Your task to perform on an android device: find photos in the google photos app Image 0: 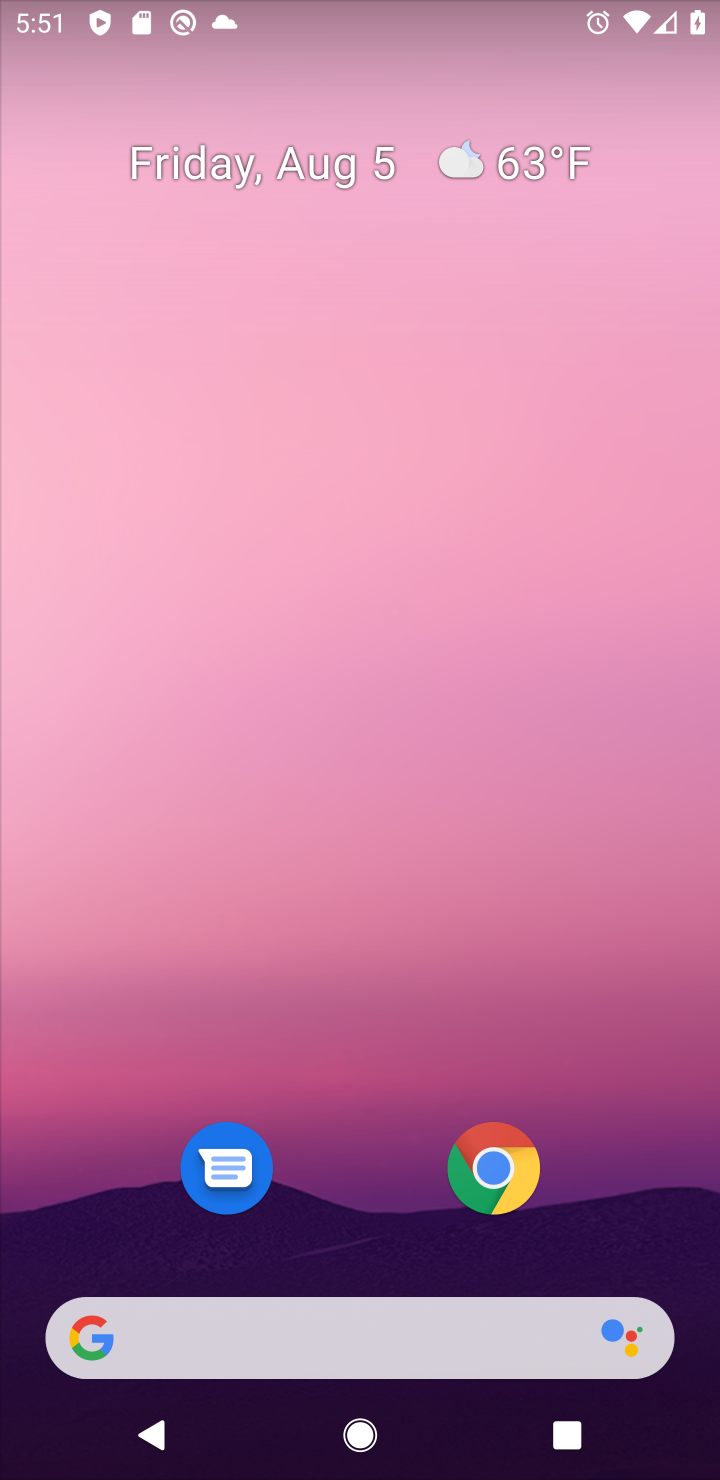
Step 0: press home button
Your task to perform on an android device: find photos in the google photos app Image 1: 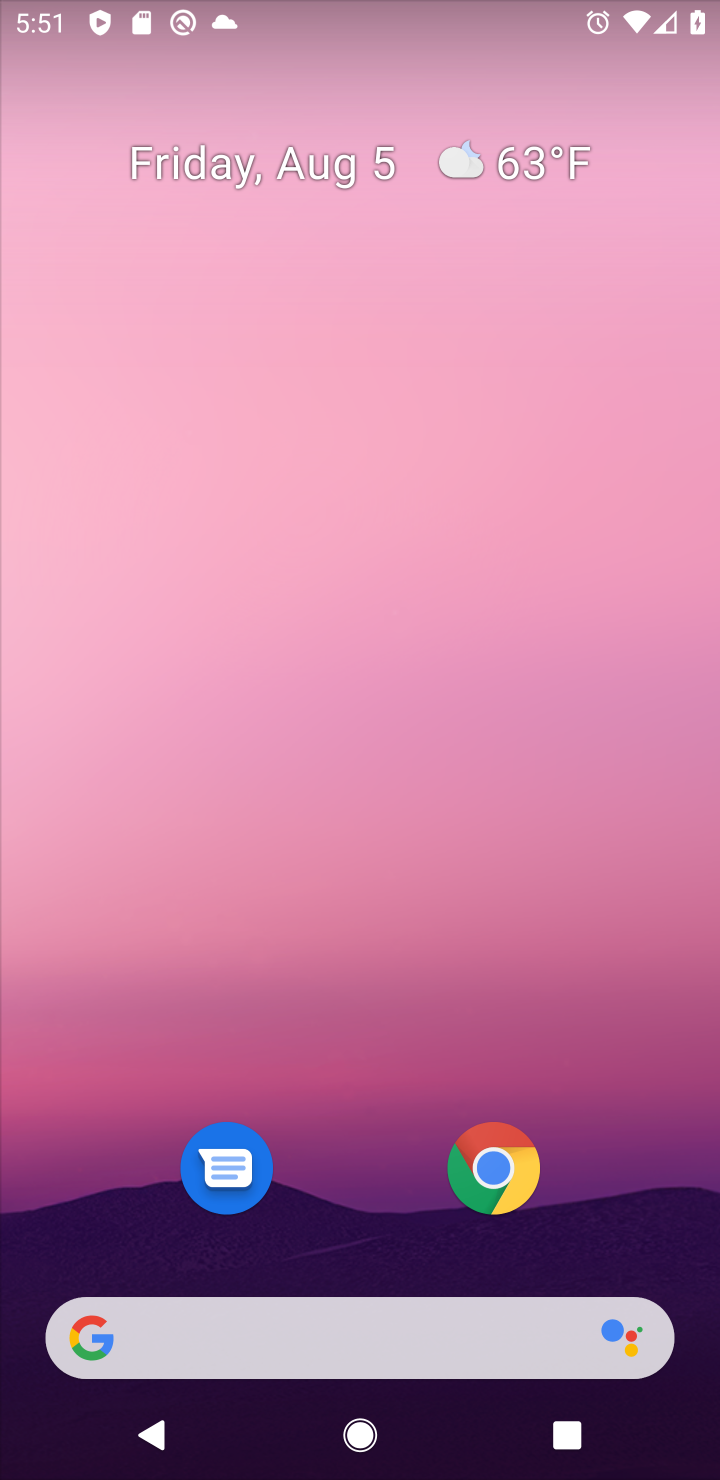
Step 1: drag from (375, 948) to (468, 189)
Your task to perform on an android device: find photos in the google photos app Image 2: 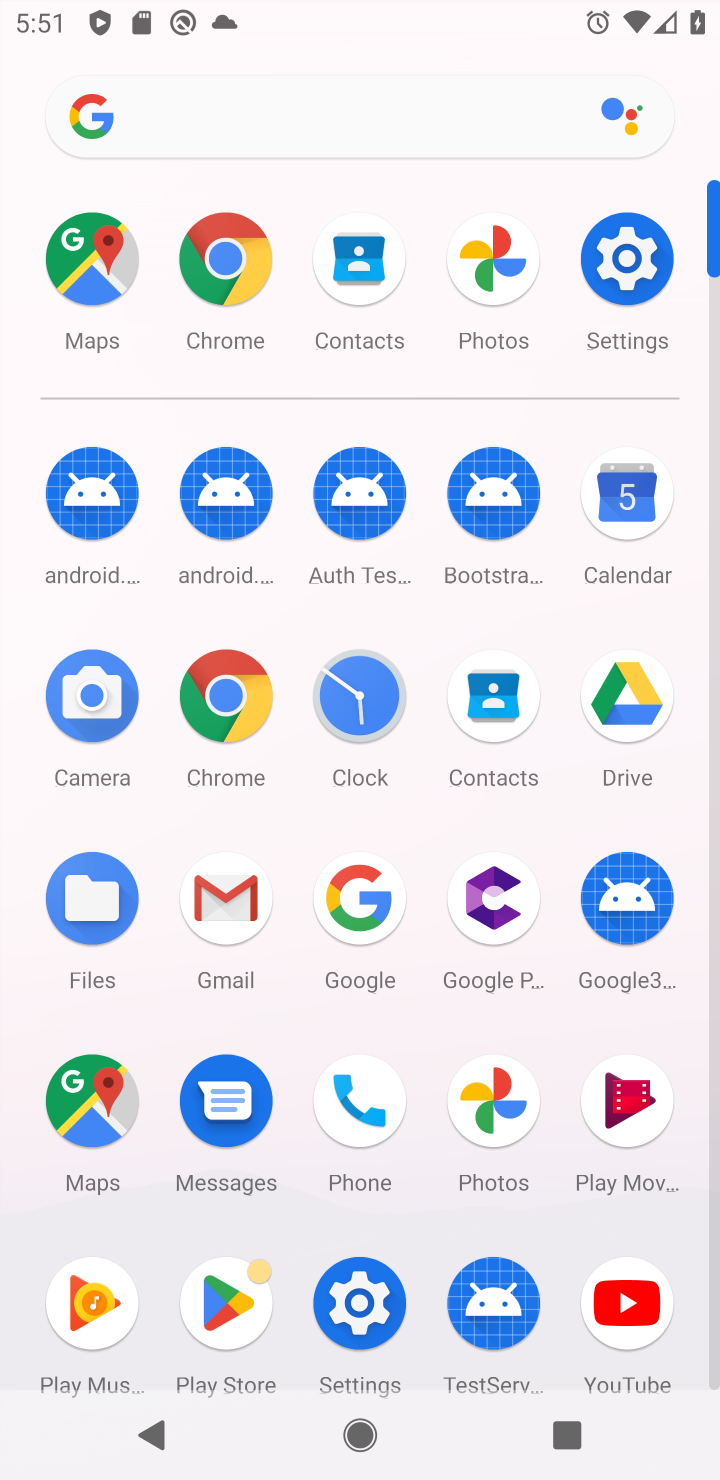
Step 2: click (493, 255)
Your task to perform on an android device: find photos in the google photos app Image 3: 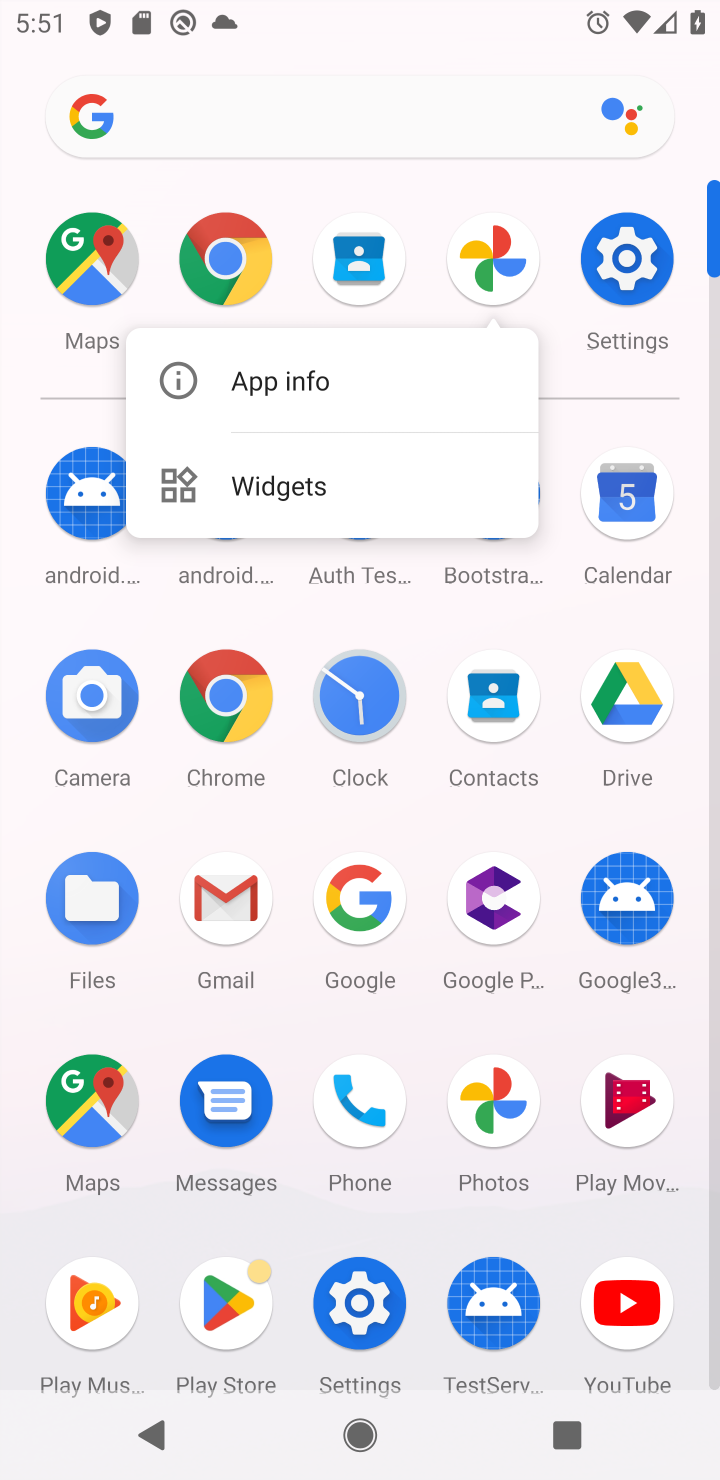
Step 3: click (496, 252)
Your task to perform on an android device: find photos in the google photos app Image 4: 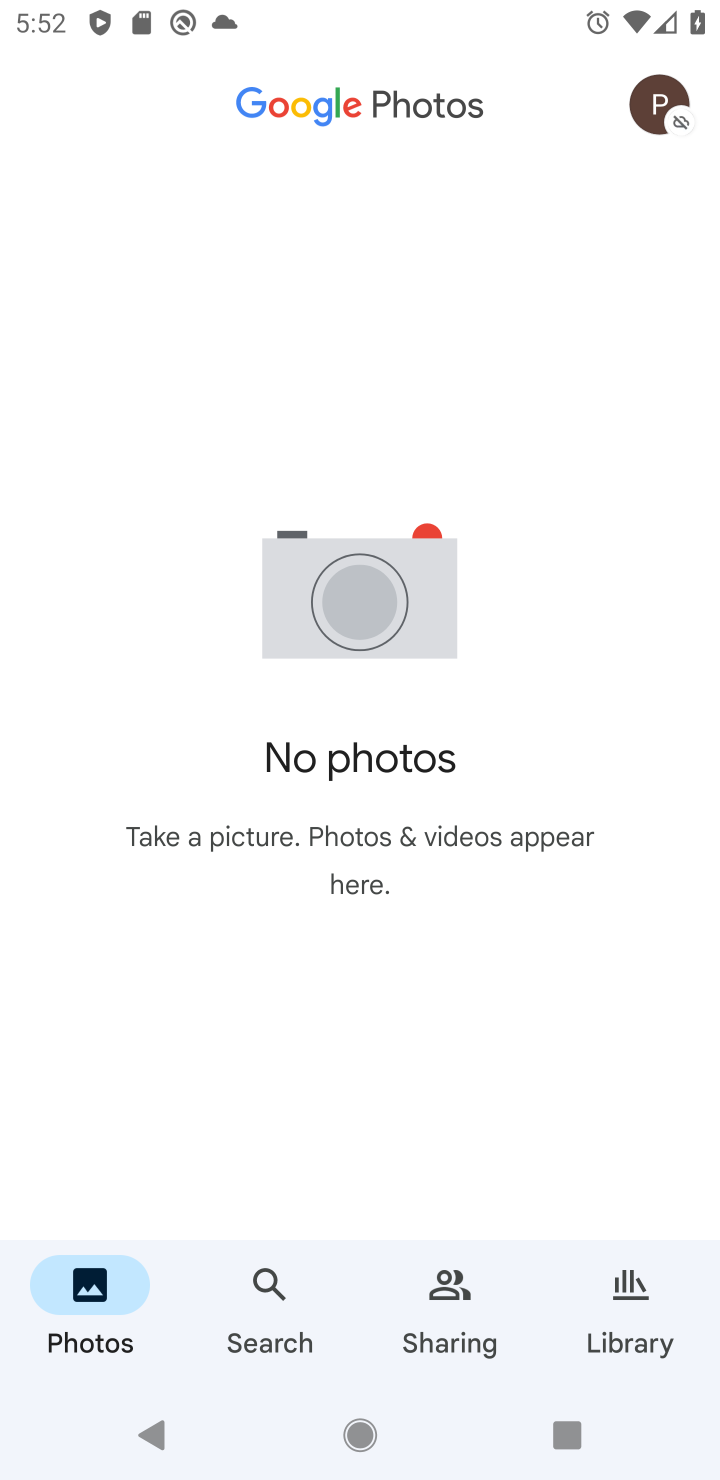
Step 4: task complete